Your task to perform on an android device: choose inbox layout in the gmail app Image 0: 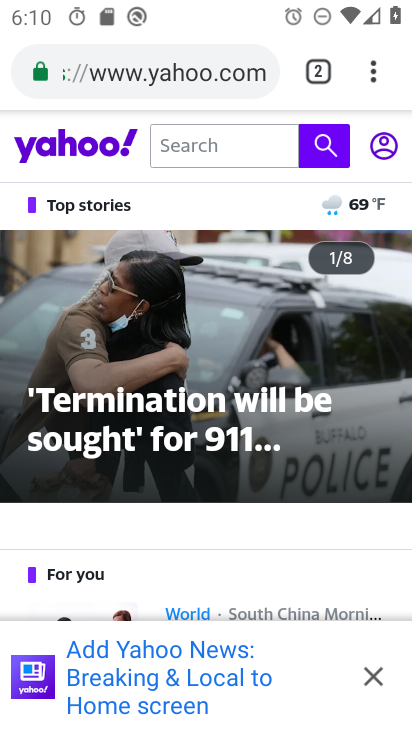
Step 0: click (226, 588)
Your task to perform on an android device: choose inbox layout in the gmail app Image 1: 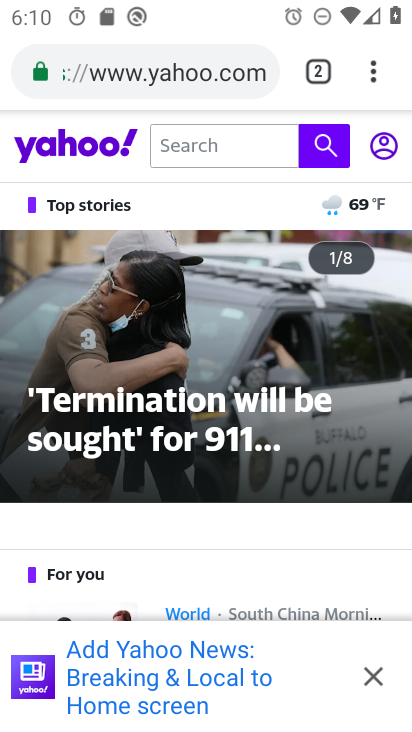
Step 1: press home button
Your task to perform on an android device: choose inbox layout in the gmail app Image 2: 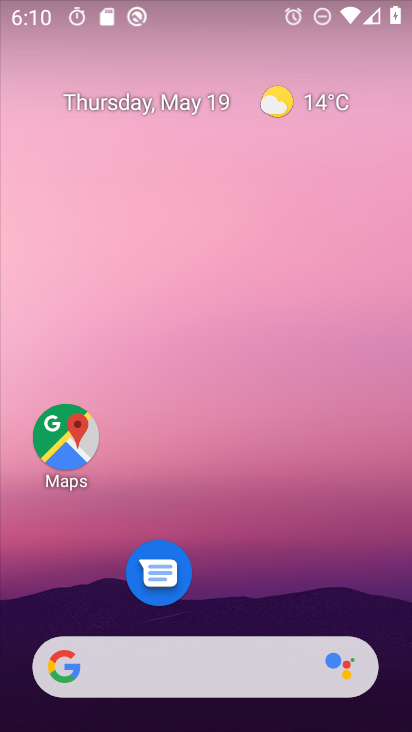
Step 2: drag from (235, 598) to (200, 81)
Your task to perform on an android device: choose inbox layout in the gmail app Image 3: 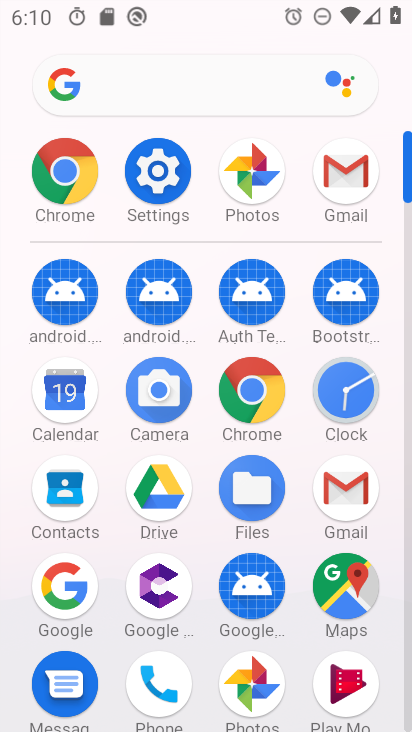
Step 3: click (354, 499)
Your task to perform on an android device: choose inbox layout in the gmail app Image 4: 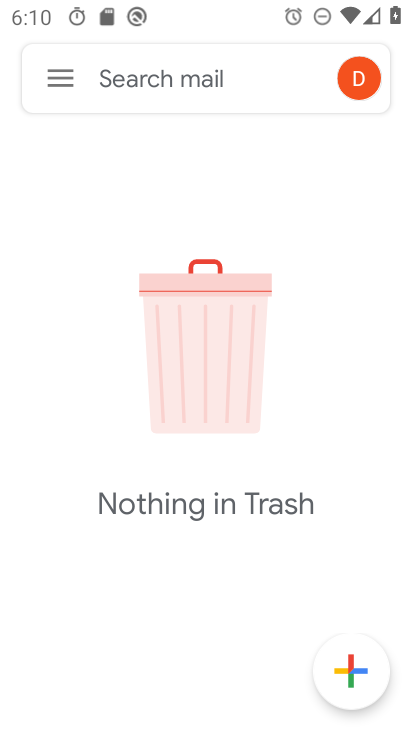
Step 4: click (52, 94)
Your task to perform on an android device: choose inbox layout in the gmail app Image 5: 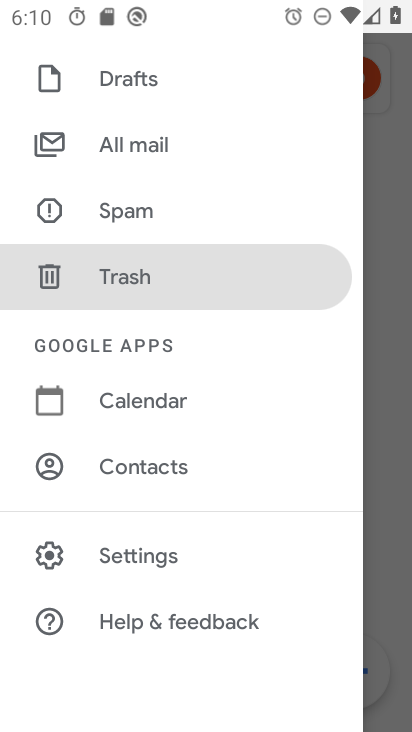
Step 5: click (164, 554)
Your task to perform on an android device: choose inbox layout in the gmail app Image 6: 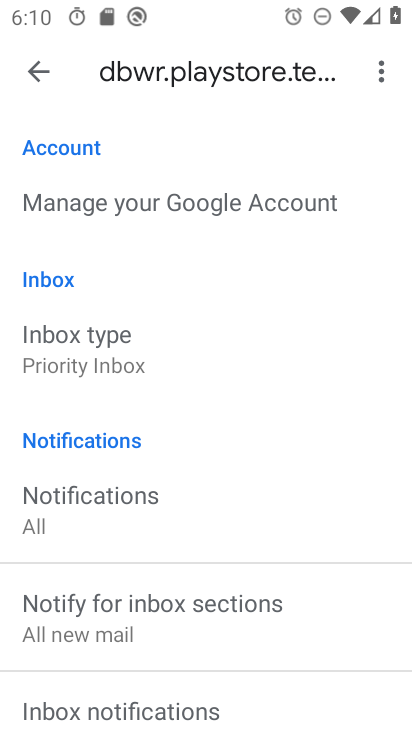
Step 6: click (80, 360)
Your task to perform on an android device: choose inbox layout in the gmail app Image 7: 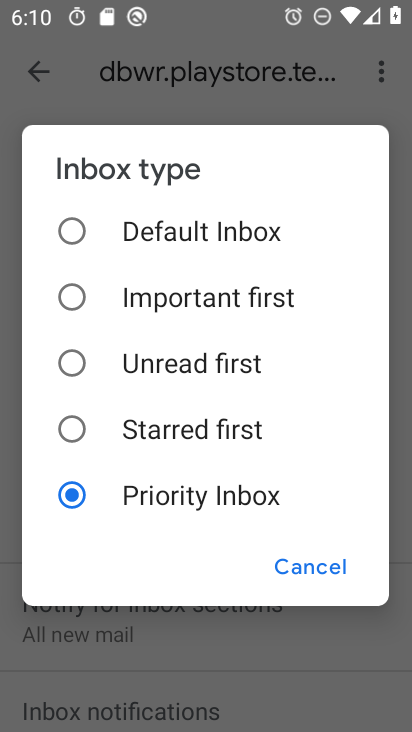
Step 7: click (70, 241)
Your task to perform on an android device: choose inbox layout in the gmail app Image 8: 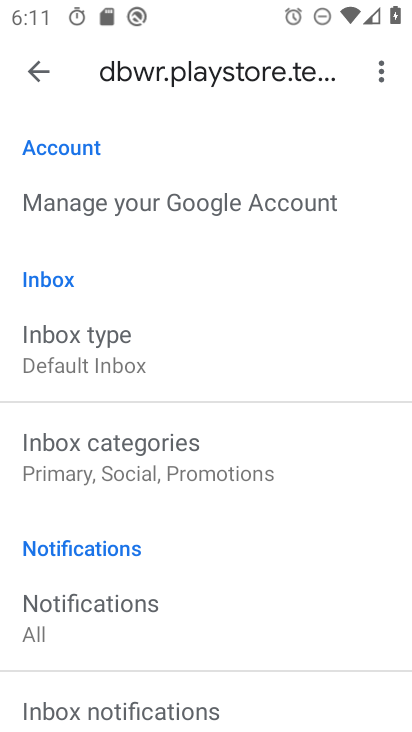
Step 8: task complete